Your task to perform on an android device: open chrome privacy settings Image 0: 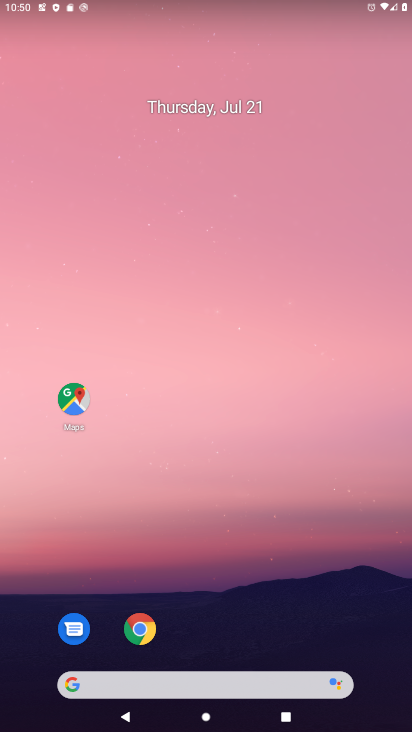
Step 0: press home button
Your task to perform on an android device: open chrome privacy settings Image 1: 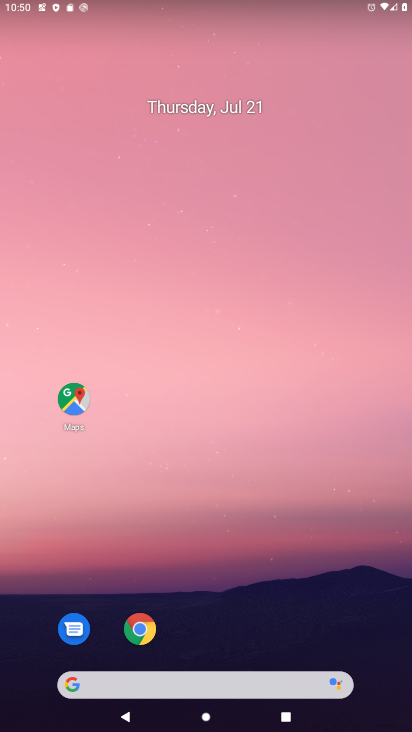
Step 1: drag from (354, 631) to (302, 290)
Your task to perform on an android device: open chrome privacy settings Image 2: 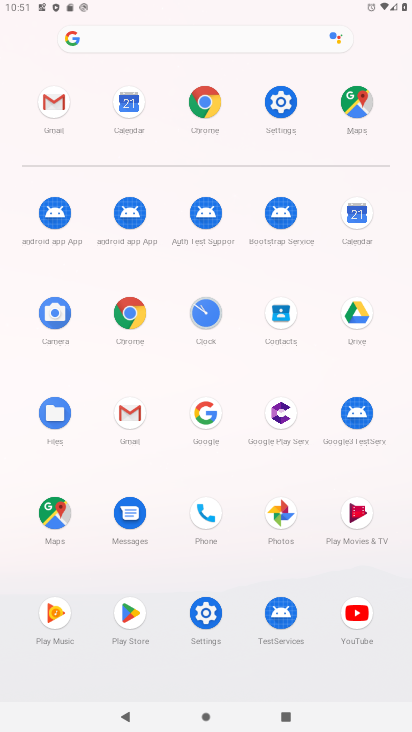
Step 2: click (221, 88)
Your task to perform on an android device: open chrome privacy settings Image 3: 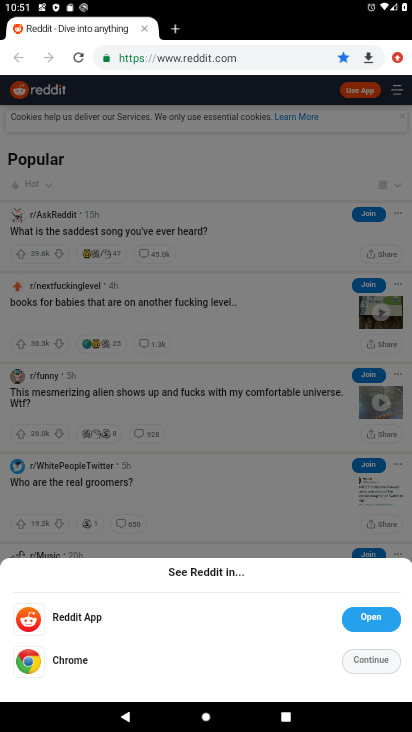
Step 3: drag from (391, 62) to (262, 405)
Your task to perform on an android device: open chrome privacy settings Image 4: 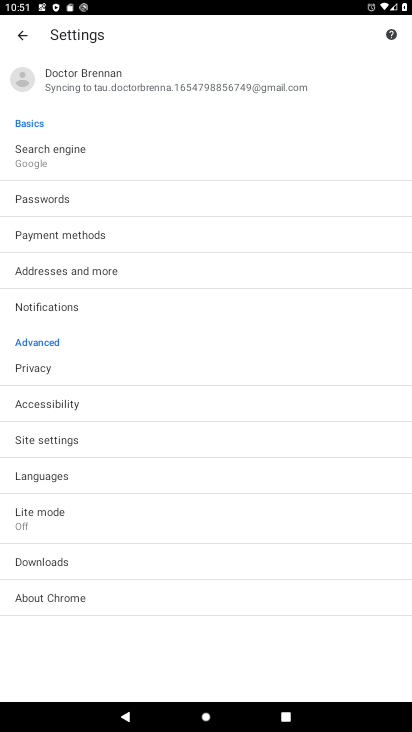
Step 4: click (26, 362)
Your task to perform on an android device: open chrome privacy settings Image 5: 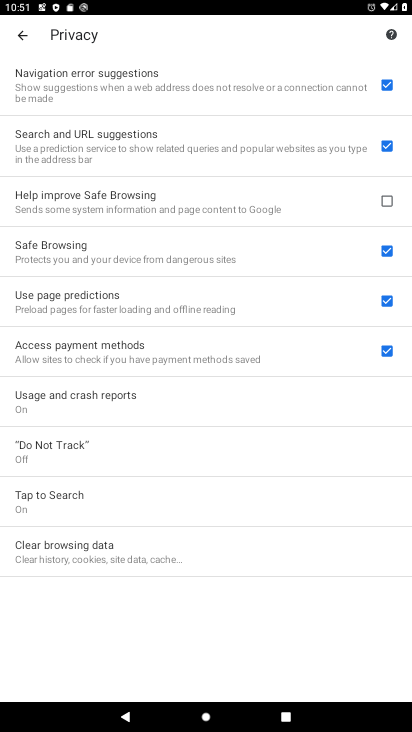
Step 5: task complete